Your task to perform on an android device: When is my next meeting? Image 0: 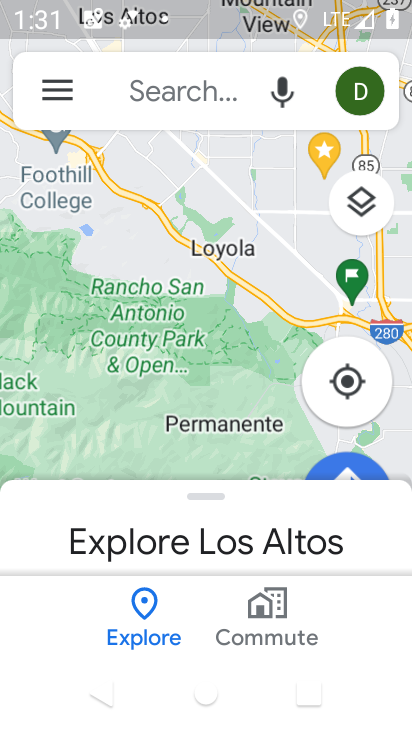
Step 0: press home button
Your task to perform on an android device: When is my next meeting? Image 1: 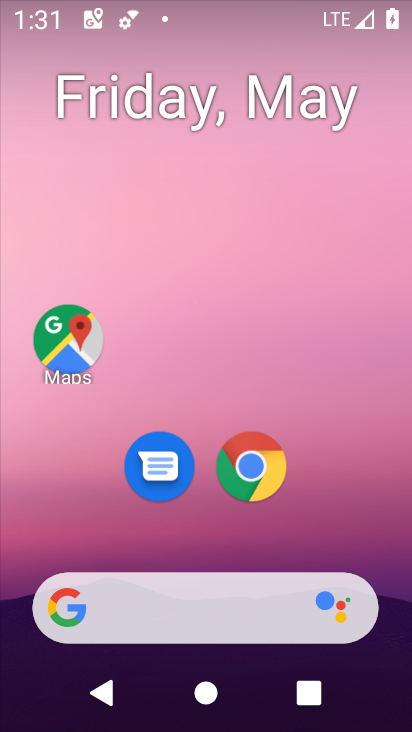
Step 1: drag from (329, 355) to (350, 59)
Your task to perform on an android device: When is my next meeting? Image 2: 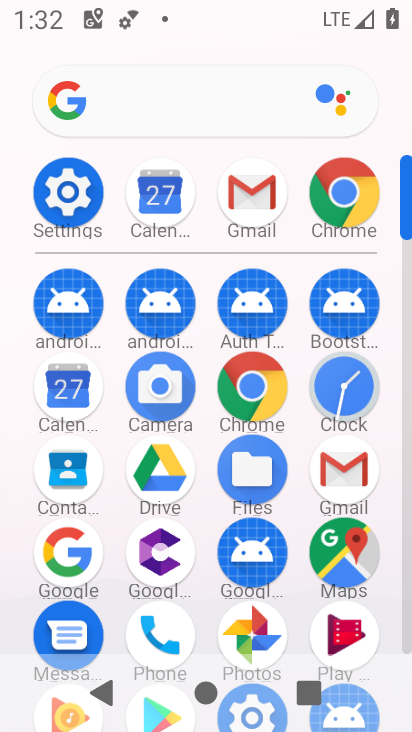
Step 2: click (157, 212)
Your task to perform on an android device: When is my next meeting? Image 3: 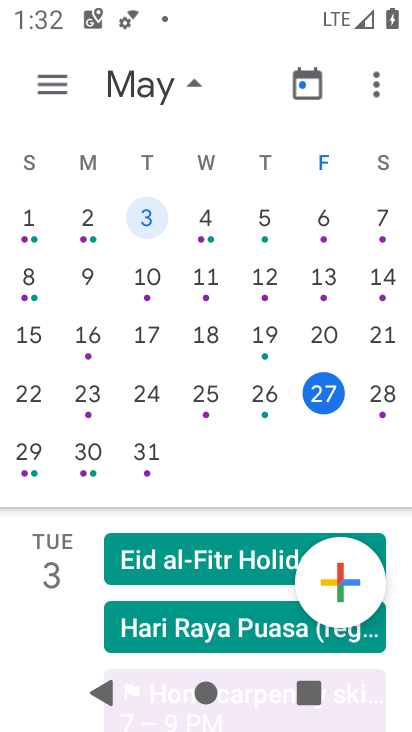
Step 3: click (380, 400)
Your task to perform on an android device: When is my next meeting? Image 4: 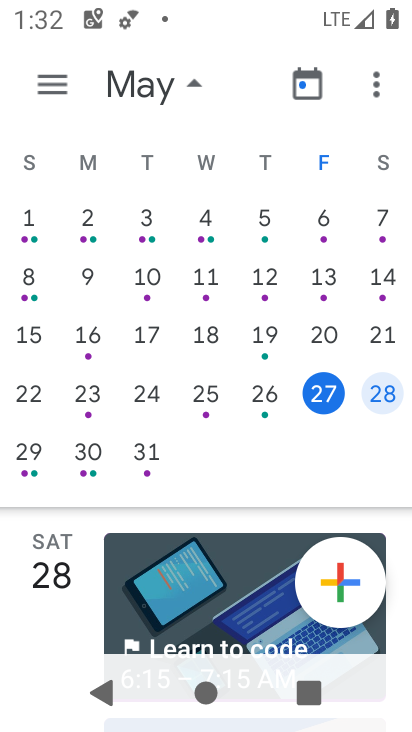
Step 4: task complete